Your task to perform on an android device: change the upload size in google photos Image 0: 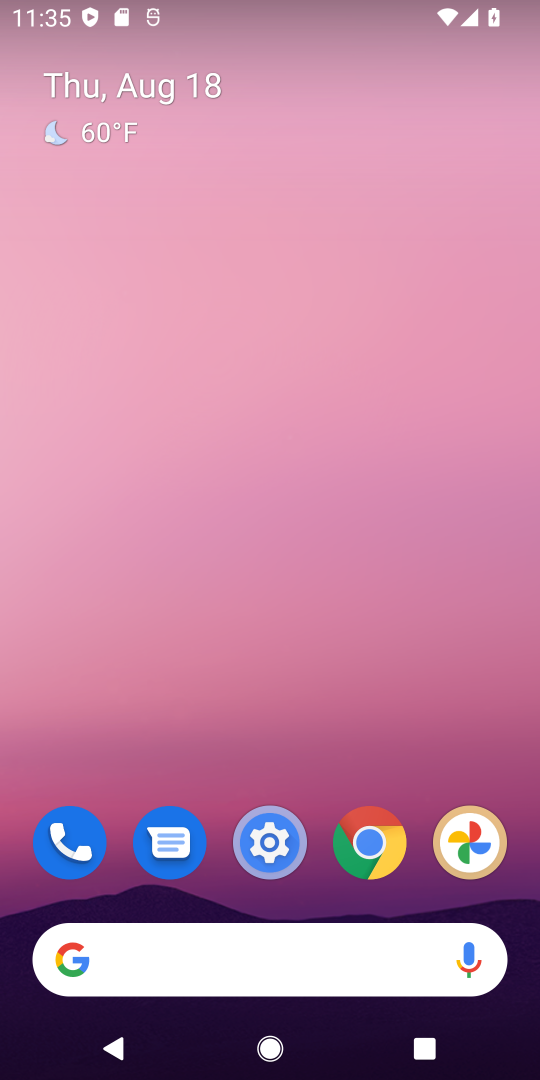
Step 0: click (501, 847)
Your task to perform on an android device: change the upload size in google photos Image 1: 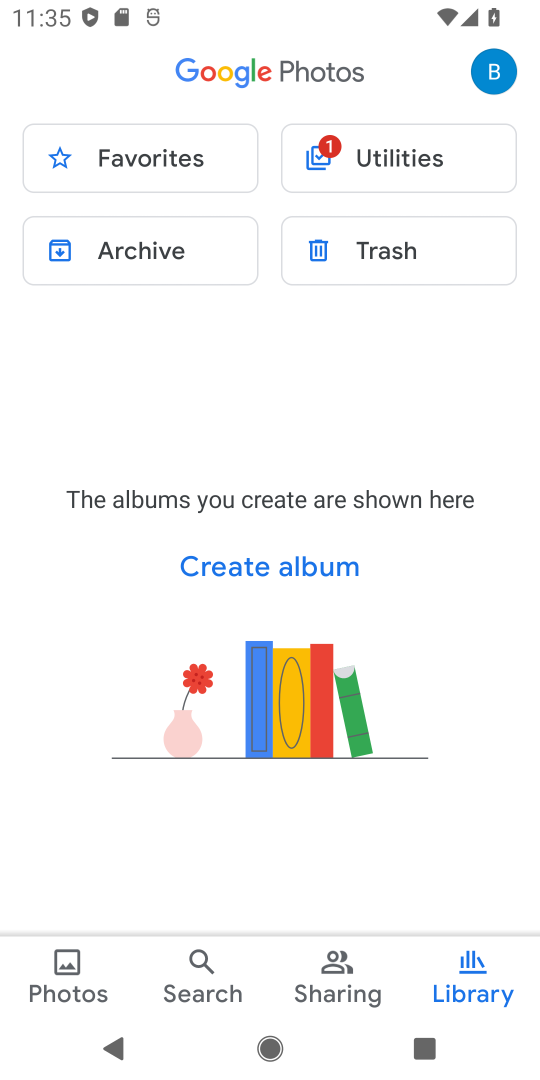
Step 1: click (498, 67)
Your task to perform on an android device: change the upload size in google photos Image 2: 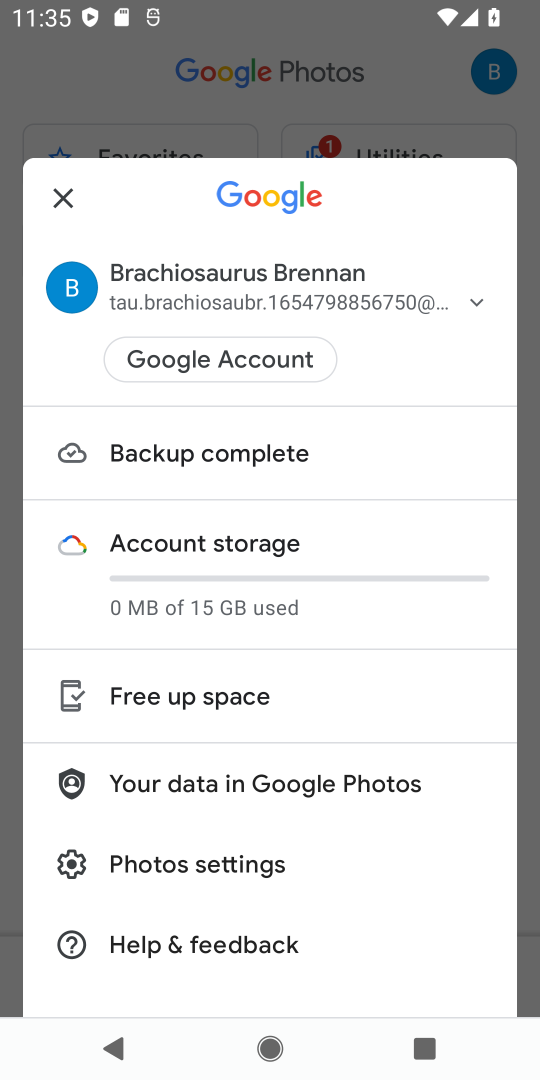
Step 2: click (268, 867)
Your task to perform on an android device: change the upload size in google photos Image 3: 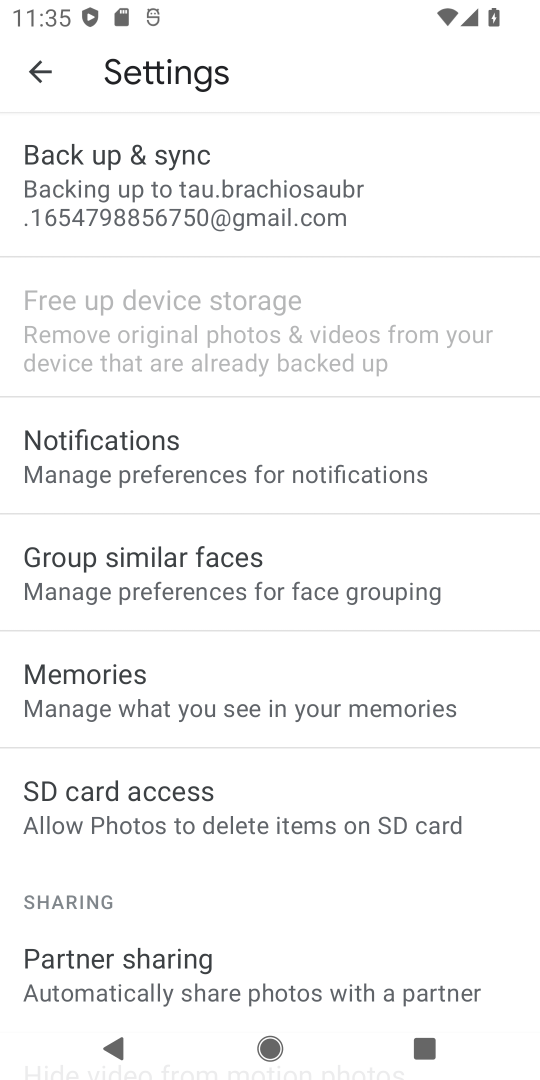
Step 3: click (127, 193)
Your task to perform on an android device: change the upload size in google photos Image 4: 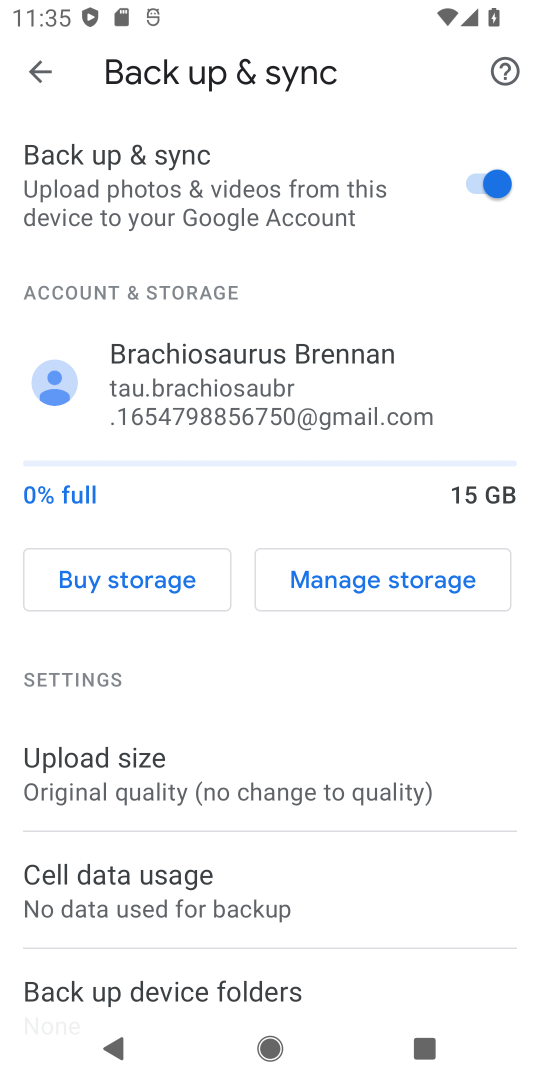
Step 4: click (139, 774)
Your task to perform on an android device: change the upload size in google photos Image 5: 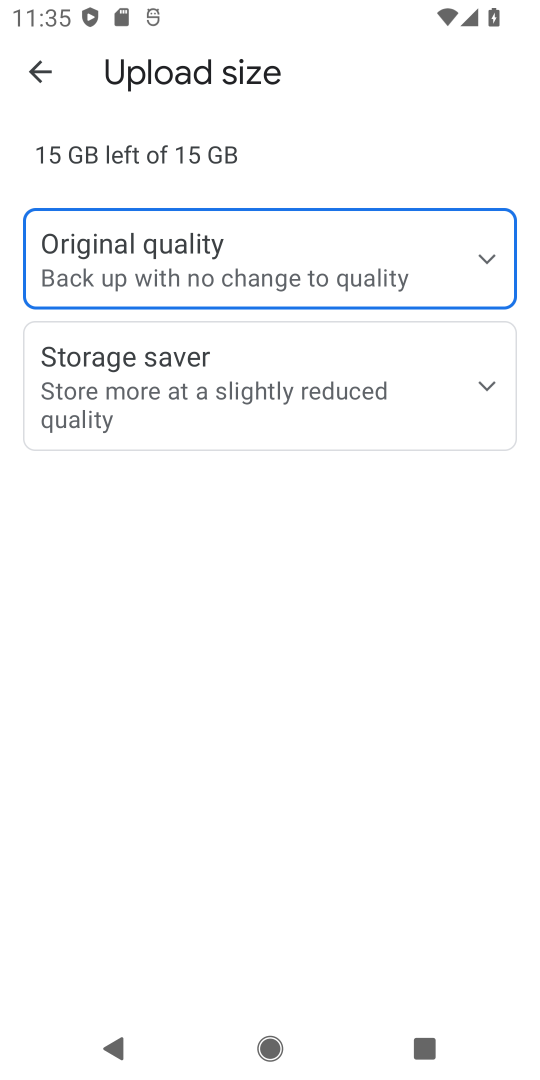
Step 5: click (169, 409)
Your task to perform on an android device: change the upload size in google photos Image 6: 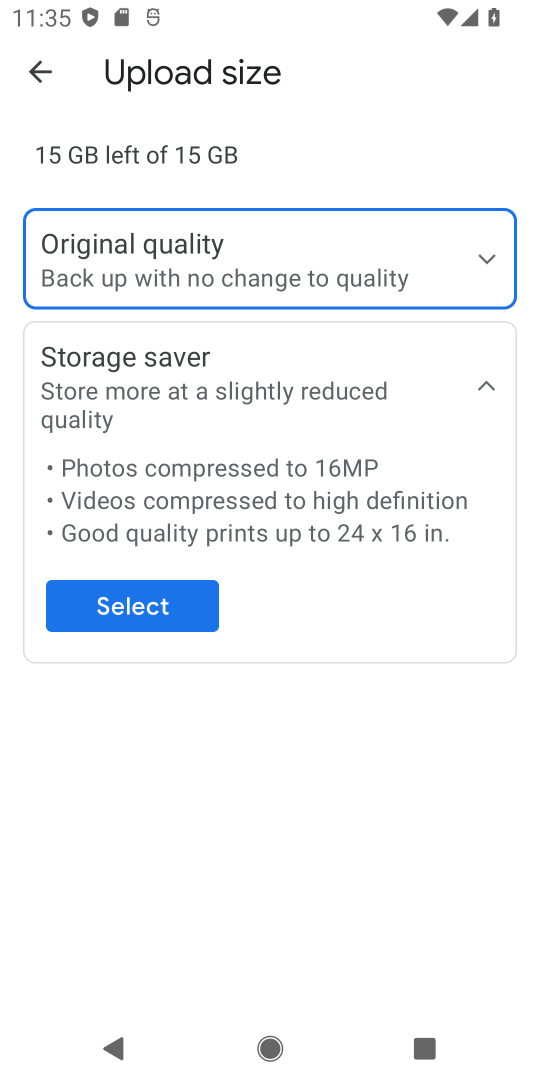
Step 6: click (122, 611)
Your task to perform on an android device: change the upload size in google photos Image 7: 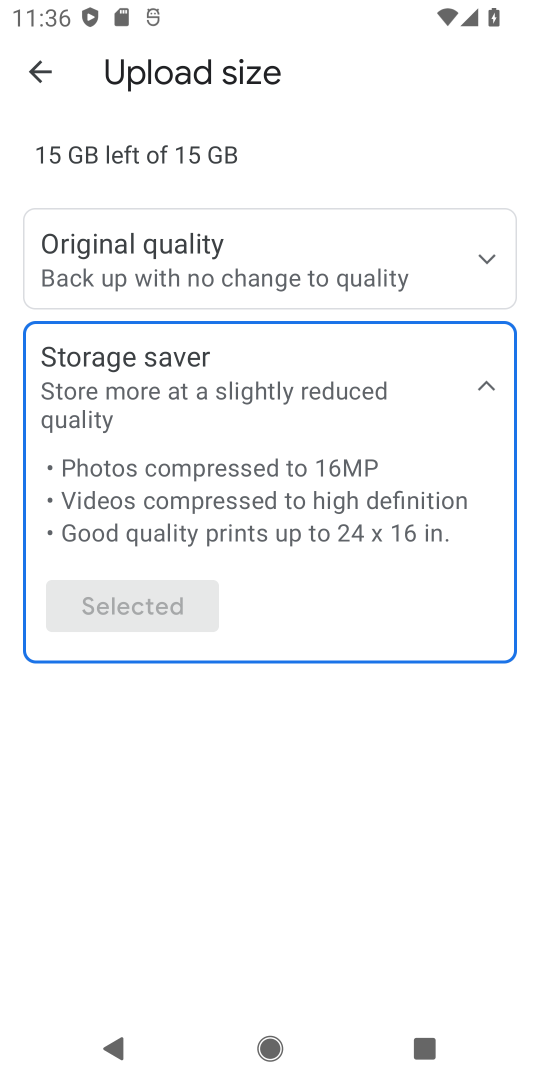
Step 7: task complete